Your task to perform on an android device: Find coffee shops on Maps Image 0: 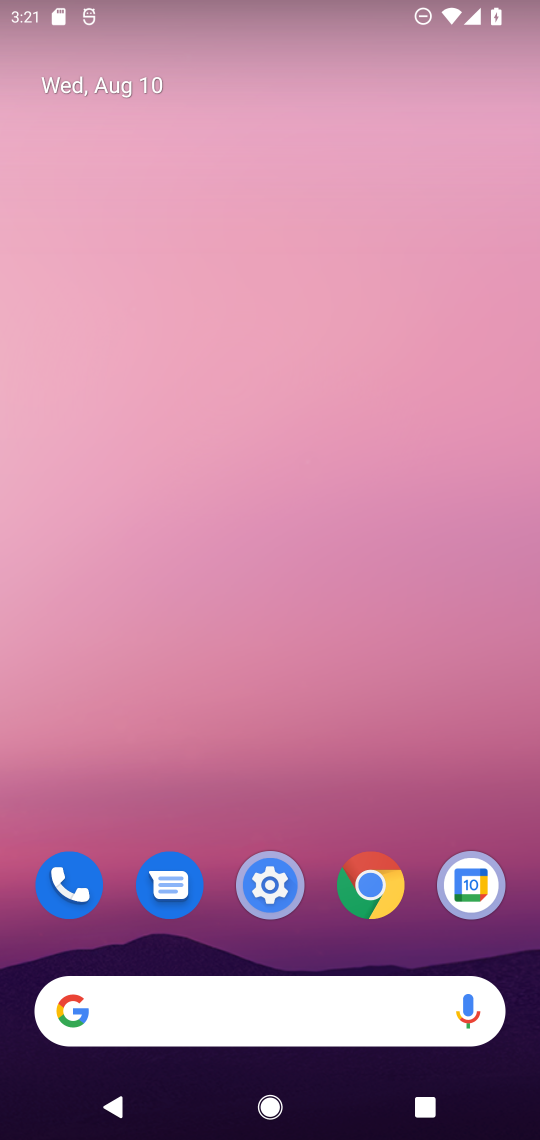
Step 0: drag from (313, 955) to (92, 1)
Your task to perform on an android device: Find coffee shops on Maps Image 1: 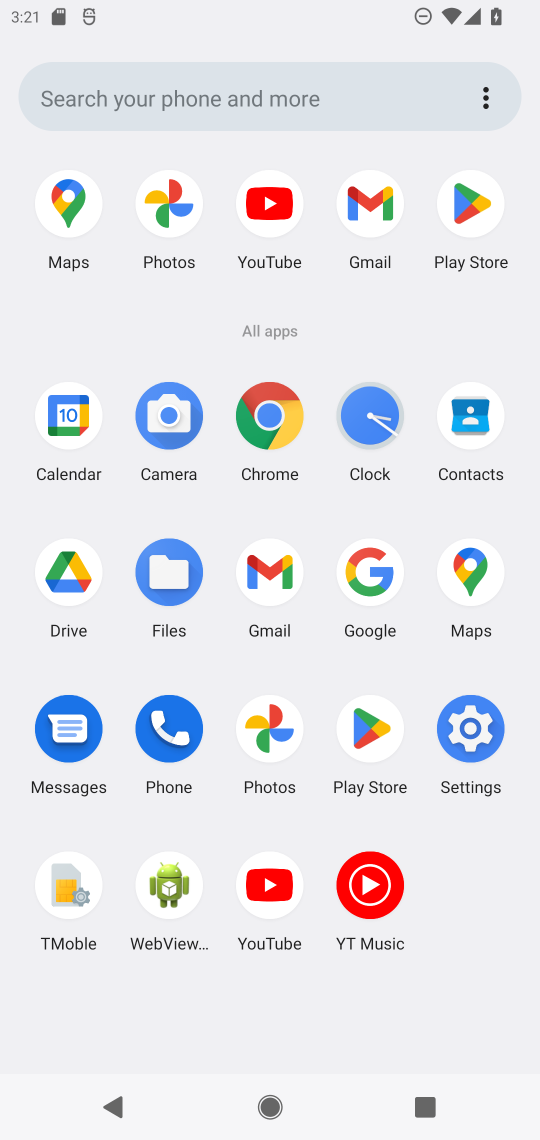
Step 1: click (474, 565)
Your task to perform on an android device: Find coffee shops on Maps Image 2: 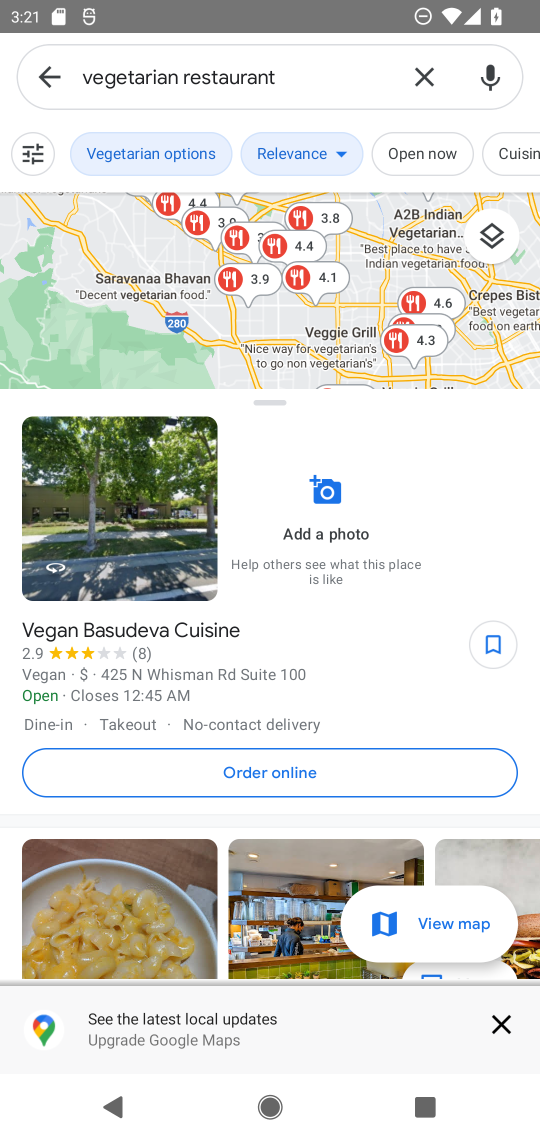
Step 2: click (427, 63)
Your task to perform on an android device: Find coffee shops on Maps Image 3: 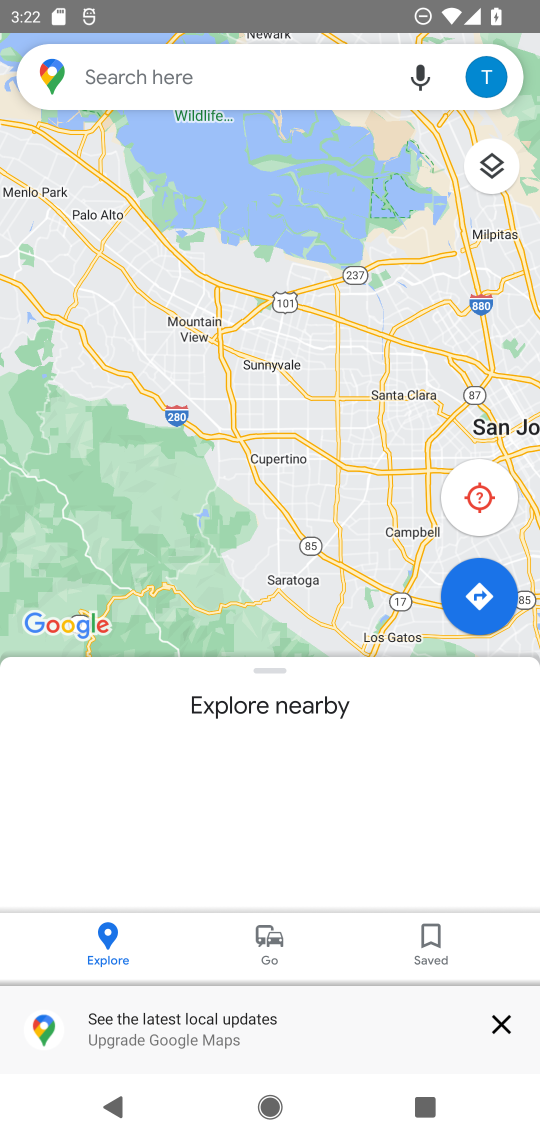
Step 3: click (193, 80)
Your task to perform on an android device: Find coffee shops on Maps Image 4: 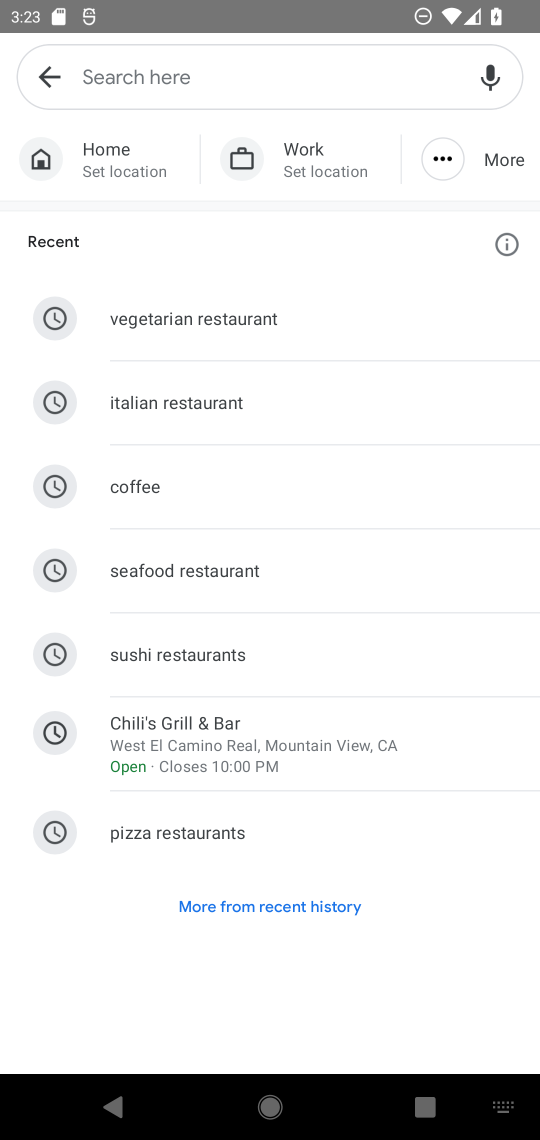
Step 4: click (137, 481)
Your task to perform on an android device: Find coffee shops on Maps Image 5: 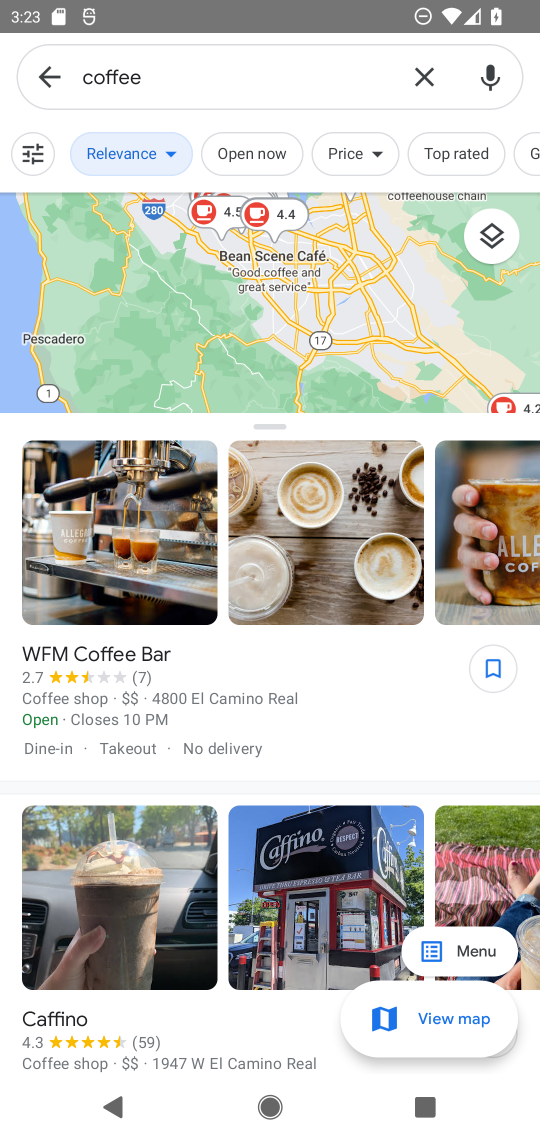
Step 5: task complete